Your task to perform on an android device: Open Amazon Image 0: 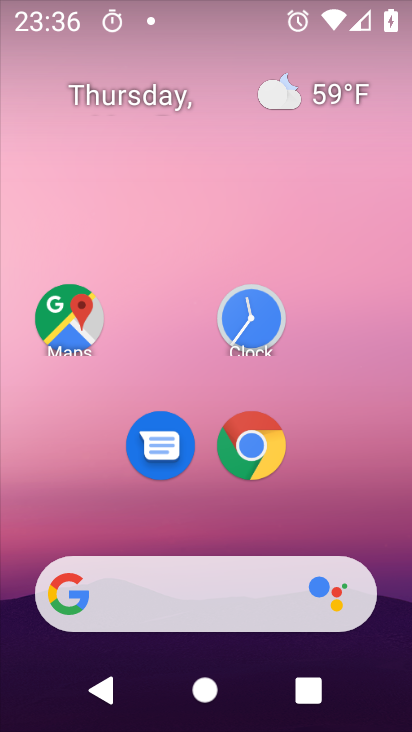
Step 0: click (260, 442)
Your task to perform on an android device: Open Amazon Image 1: 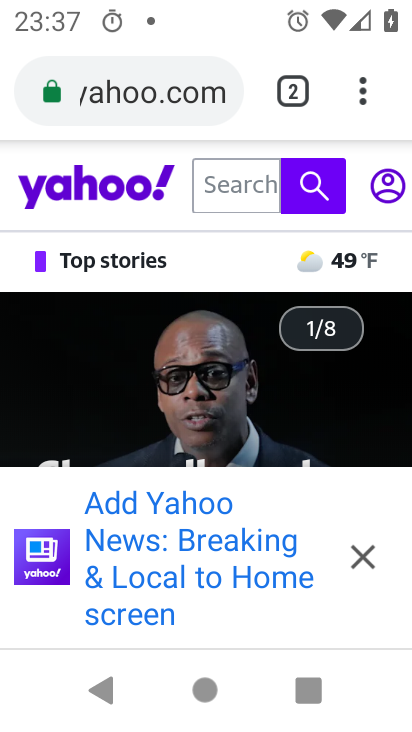
Step 1: click (165, 94)
Your task to perform on an android device: Open Amazon Image 2: 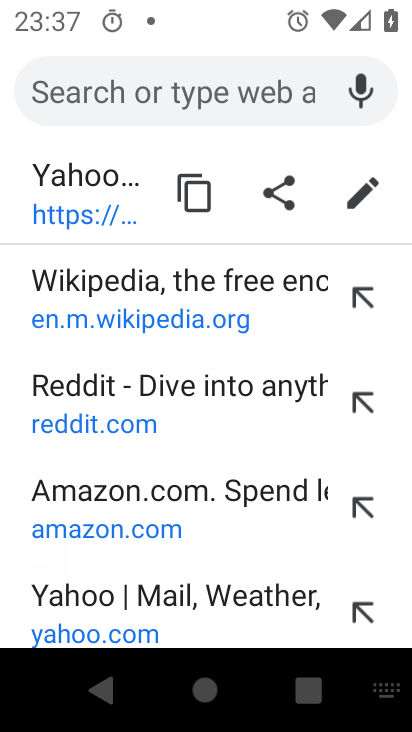
Step 2: click (115, 510)
Your task to perform on an android device: Open Amazon Image 3: 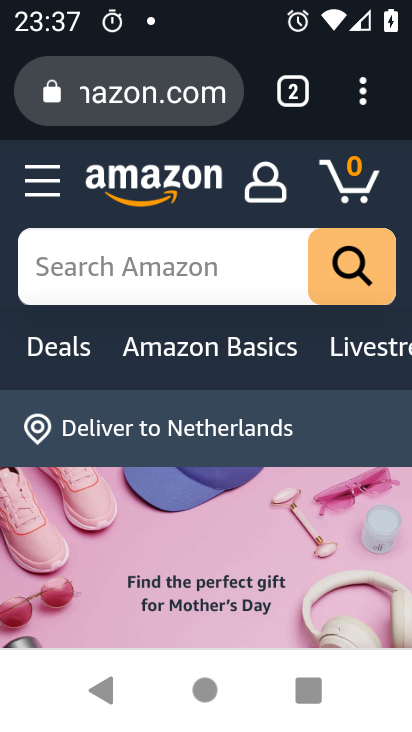
Step 3: task complete